Your task to perform on an android device: open a bookmark in the chrome app Image 0: 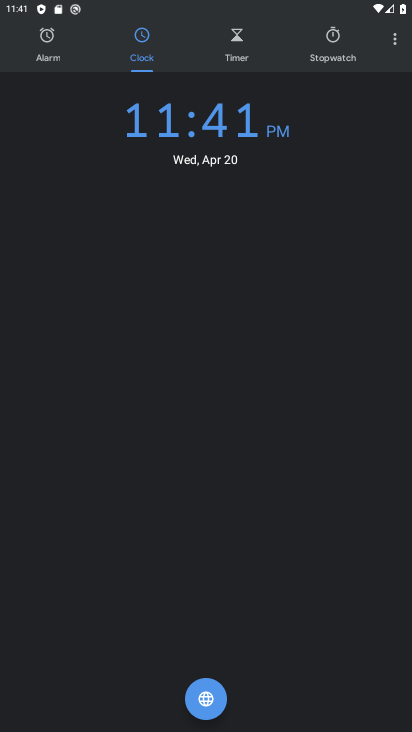
Step 0: press home button
Your task to perform on an android device: open a bookmark in the chrome app Image 1: 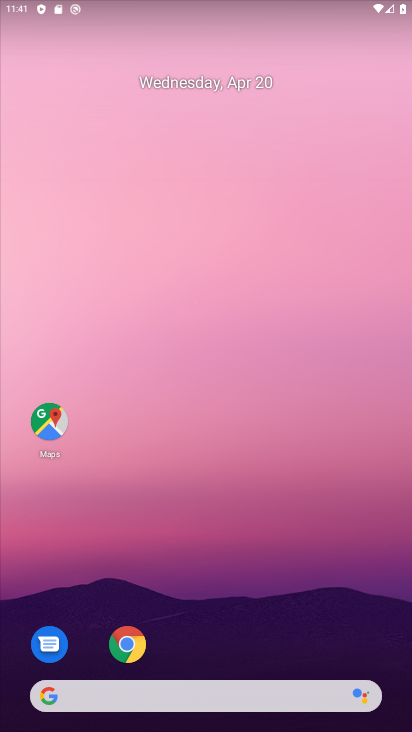
Step 1: click (127, 642)
Your task to perform on an android device: open a bookmark in the chrome app Image 2: 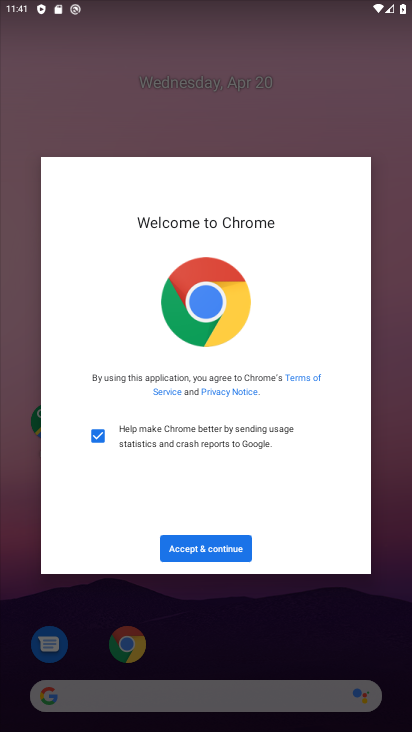
Step 2: click (206, 550)
Your task to perform on an android device: open a bookmark in the chrome app Image 3: 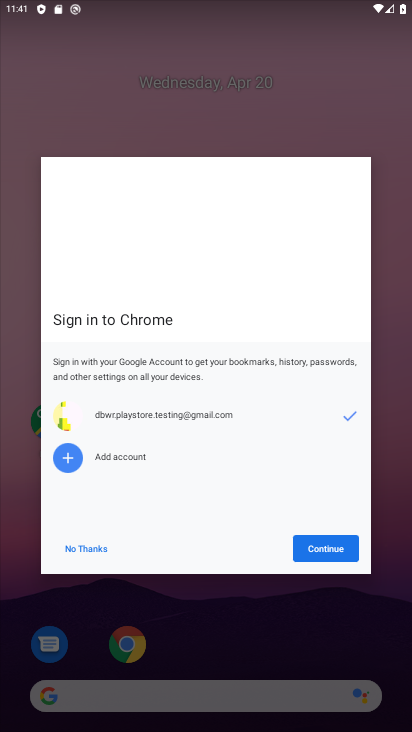
Step 3: click (314, 546)
Your task to perform on an android device: open a bookmark in the chrome app Image 4: 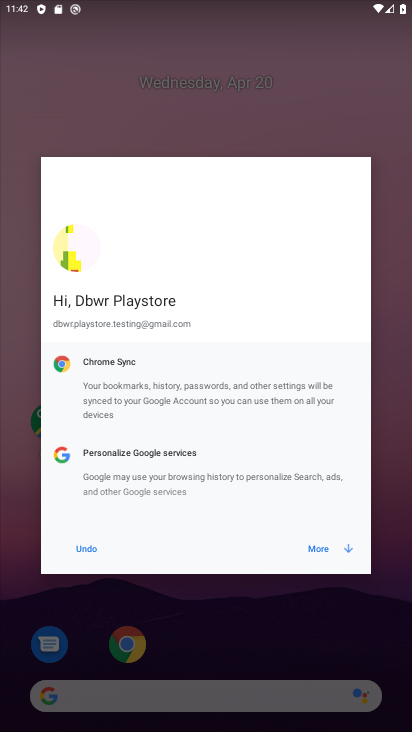
Step 4: click (314, 546)
Your task to perform on an android device: open a bookmark in the chrome app Image 5: 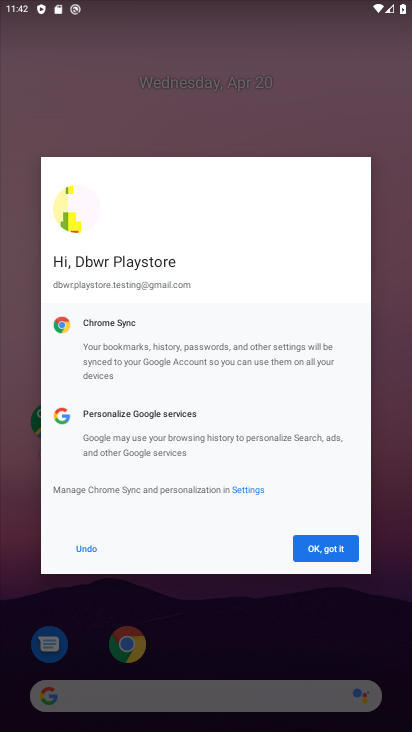
Step 5: click (314, 546)
Your task to perform on an android device: open a bookmark in the chrome app Image 6: 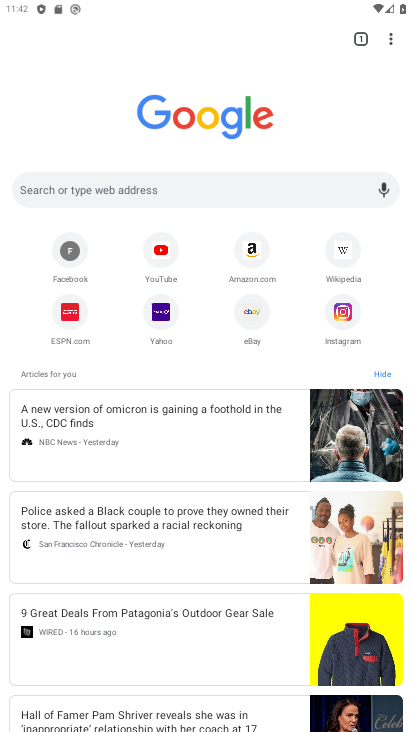
Step 6: click (391, 41)
Your task to perform on an android device: open a bookmark in the chrome app Image 7: 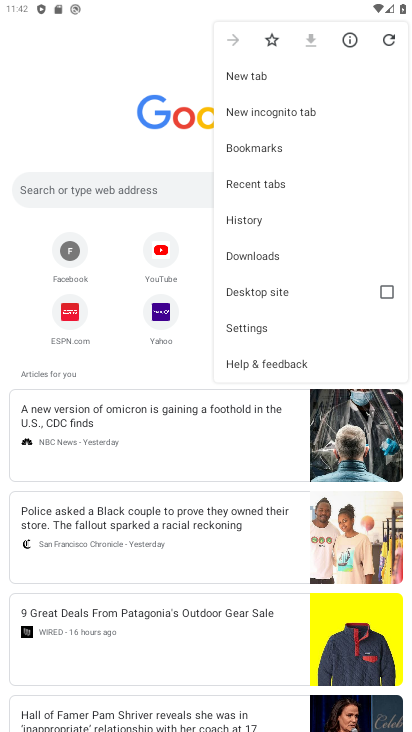
Step 7: click (252, 142)
Your task to perform on an android device: open a bookmark in the chrome app Image 8: 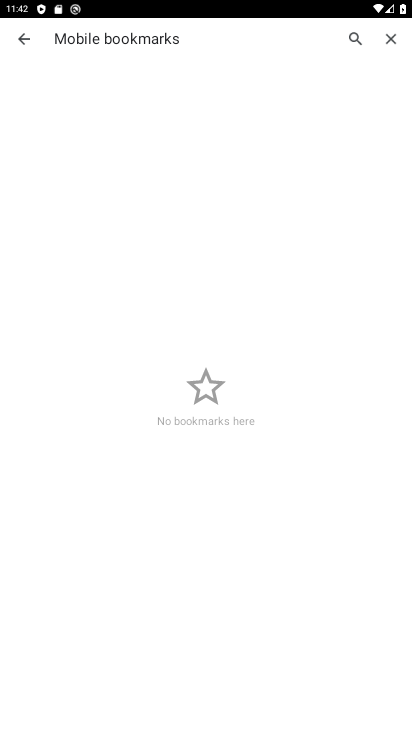
Step 8: task complete